Your task to perform on an android device: Open sound settings Image 0: 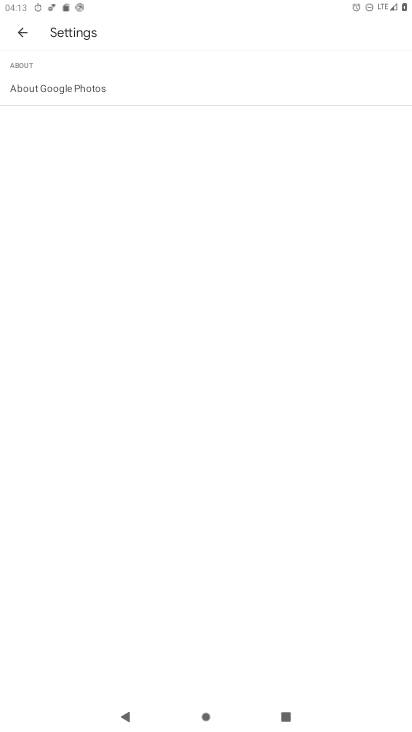
Step 0: press home button
Your task to perform on an android device: Open sound settings Image 1: 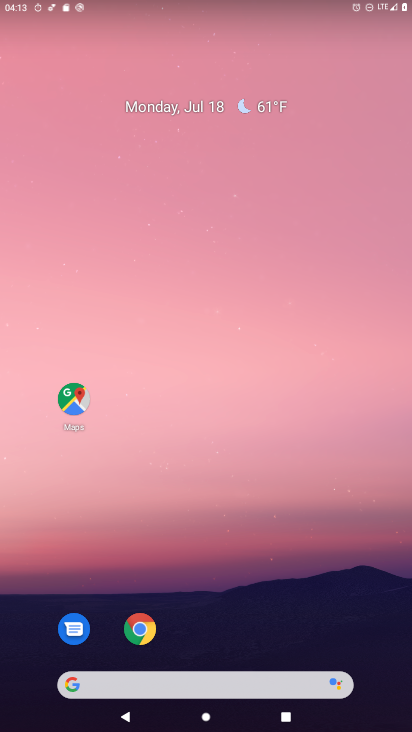
Step 1: drag from (199, 684) to (205, 164)
Your task to perform on an android device: Open sound settings Image 2: 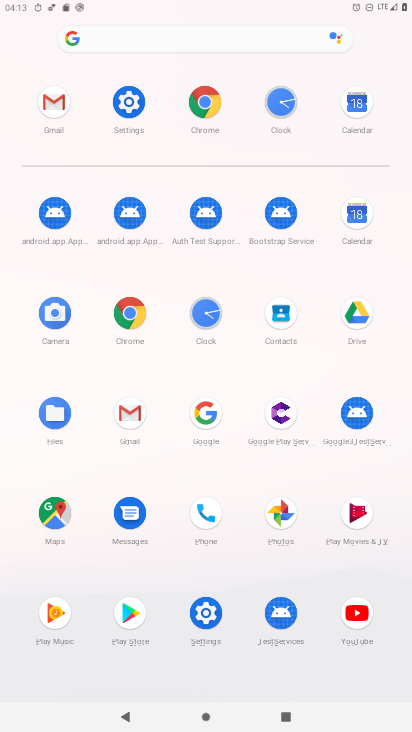
Step 2: click (131, 103)
Your task to perform on an android device: Open sound settings Image 3: 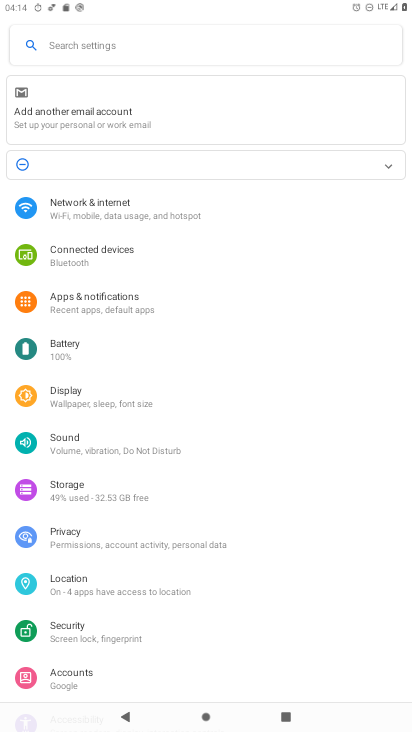
Step 3: click (85, 445)
Your task to perform on an android device: Open sound settings Image 4: 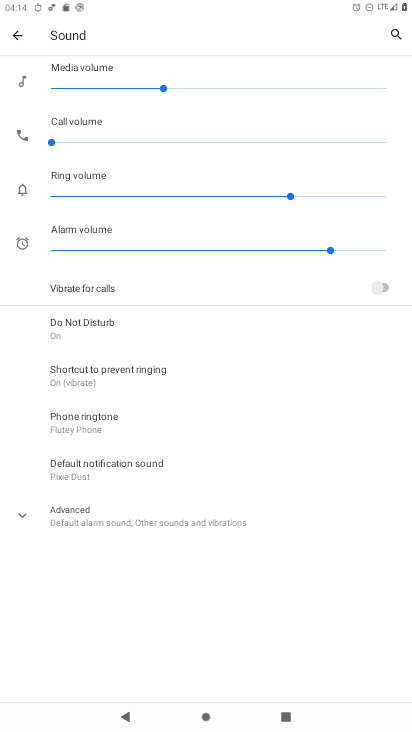
Step 4: task complete